Your task to perform on an android device: Open accessibility settings Image 0: 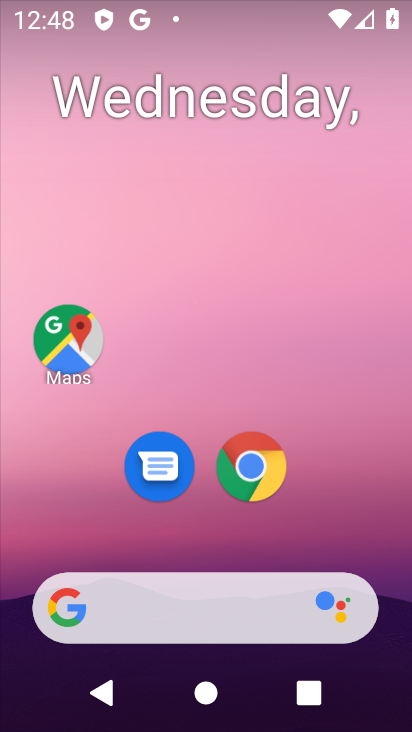
Step 0: drag from (343, 543) to (313, 5)
Your task to perform on an android device: Open accessibility settings Image 1: 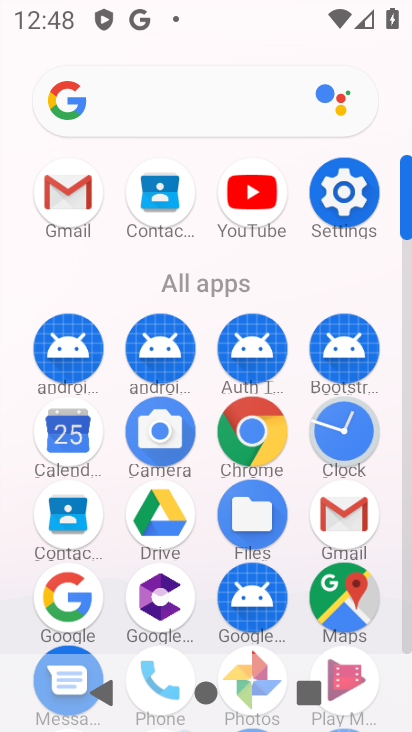
Step 1: click (334, 178)
Your task to perform on an android device: Open accessibility settings Image 2: 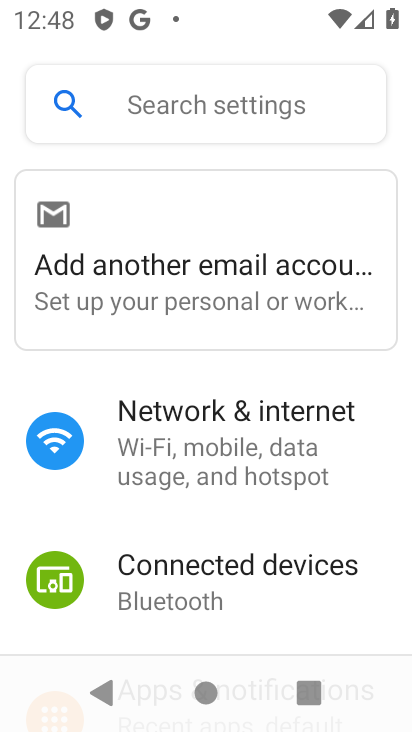
Step 2: drag from (222, 577) to (287, 184)
Your task to perform on an android device: Open accessibility settings Image 3: 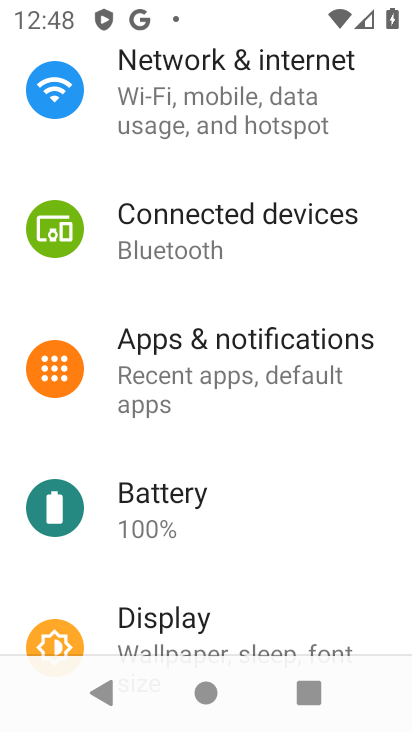
Step 3: drag from (293, 518) to (319, 149)
Your task to perform on an android device: Open accessibility settings Image 4: 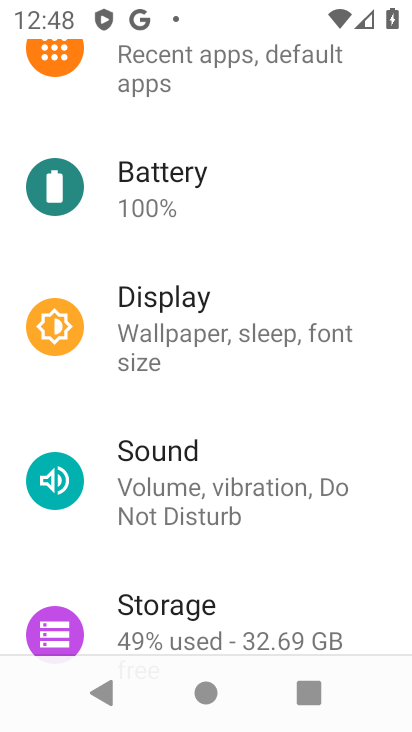
Step 4: drag from (234, 577) to (308, 179)
Your task to perform on an android device: Open accessibility settings Image 5: 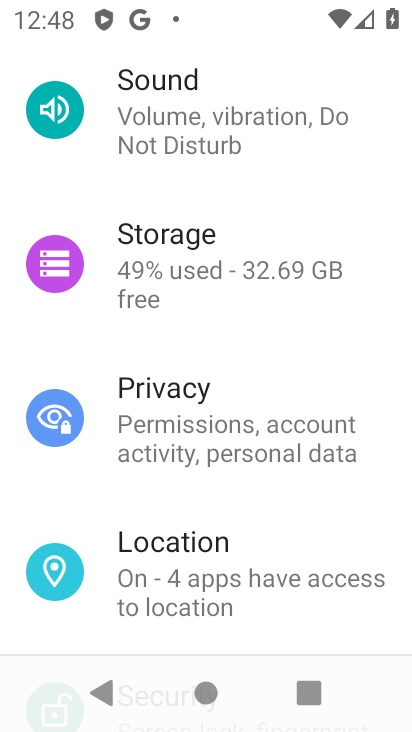
Step 5: drag from (281, 544) to (353, 169)
Your task to perform on an android device: Open accessibility settings Image 6: 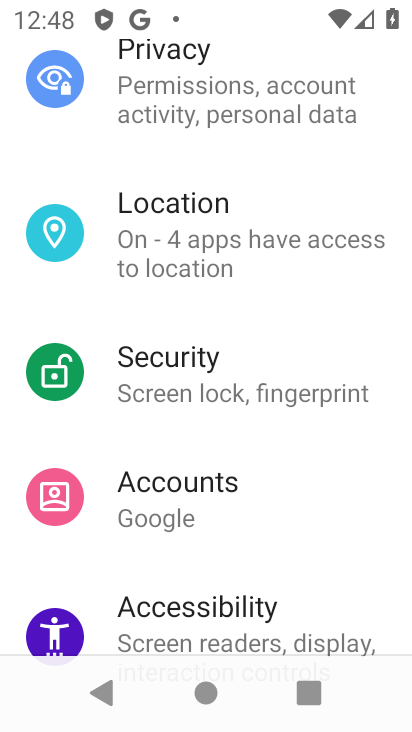
Step 6: click (262, 617)
Your task to perform on an android device: Open accessibility settings Image 7: 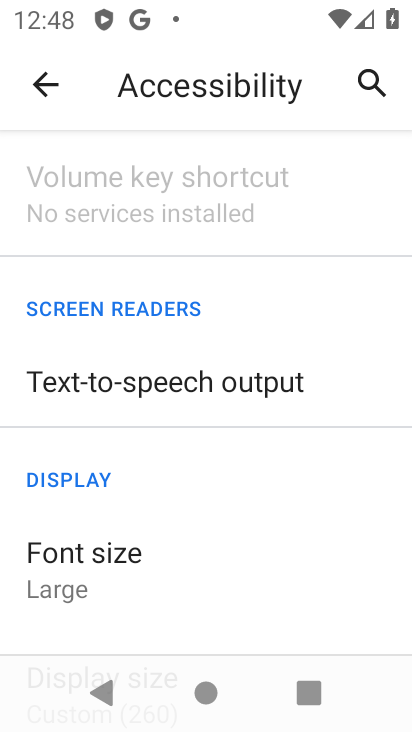
Step 7: task complete